Your task to perform on an android device: Go to battery settings Image 0: 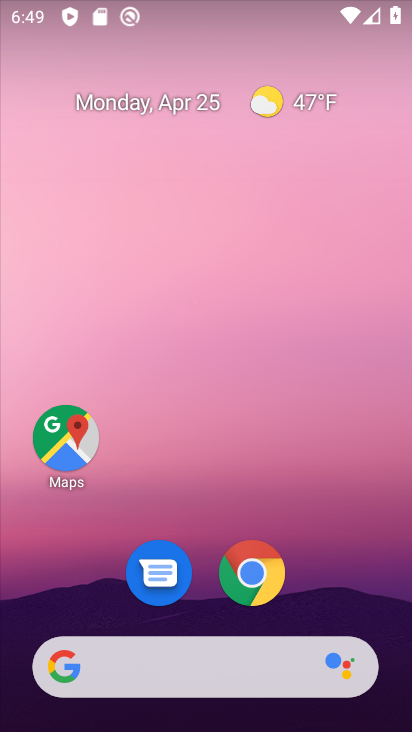
Step 0: drag from (341, 581) to (212, 34)
Your task to perform on an android device: Go to battery settings Image 1: 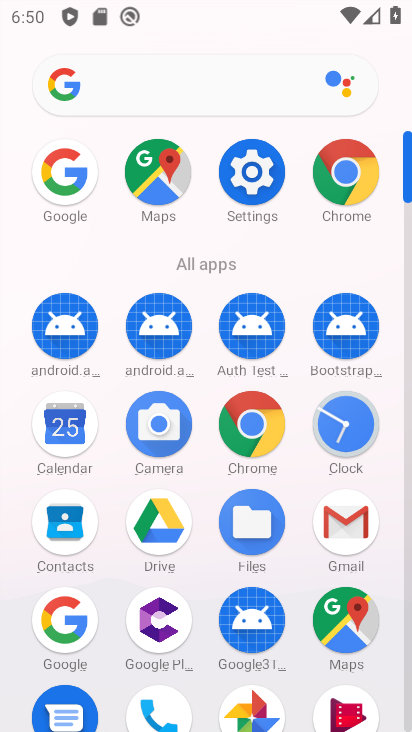
Step 1: click (247, 193)
Your task to perform on an android device: Go to battery settings Image 2: 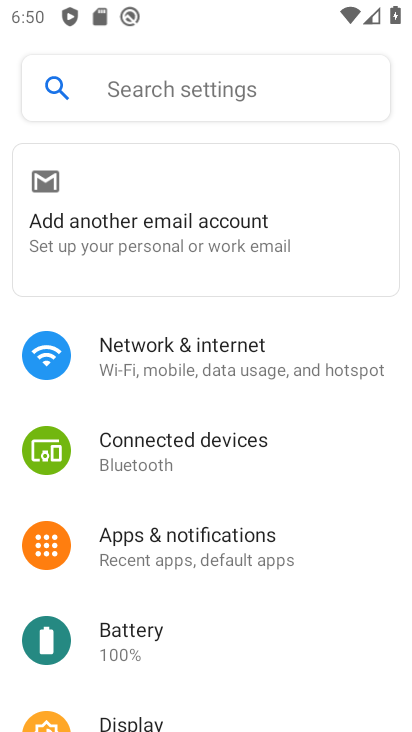
Step 2: click (205, 649)
Your task to perform on an android device: Go to battery settings Image 3: 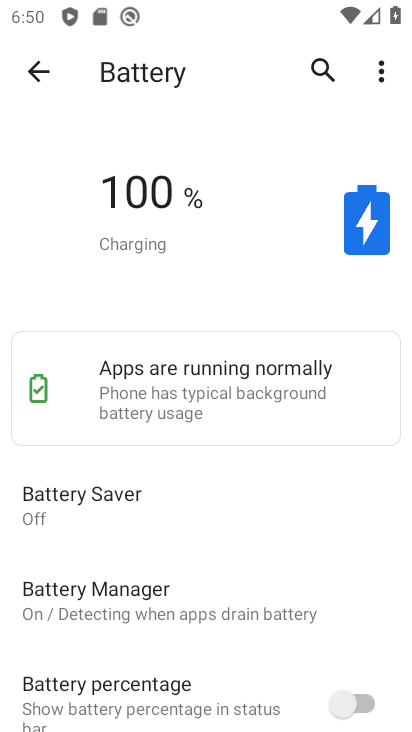
Step 3: task complete